Your task to perform on an android device: turn off notifications settings in the gmail app Image 0: 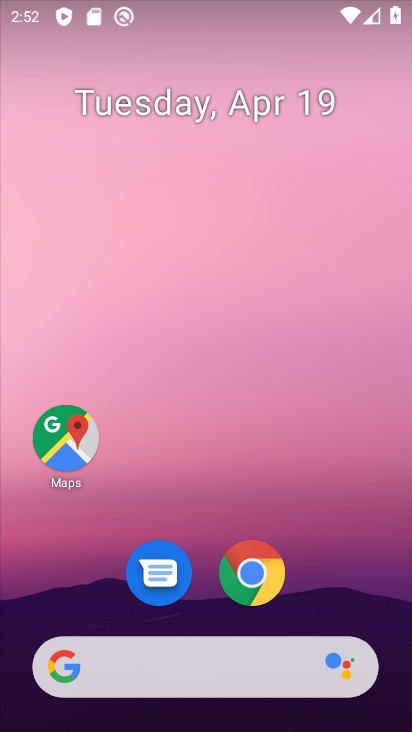
Step 0: drag from (333, 606) to (325, 111)
Your task to perform on an android device: turn off notifications settings in the gmail app Image 1: 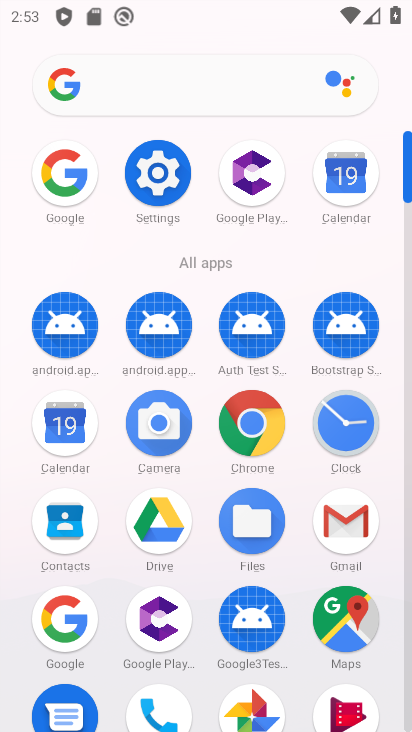
Step 1: click (342, 541)
Your task to perform on an android device: turn off notifications settings in the gmail app Image 2: 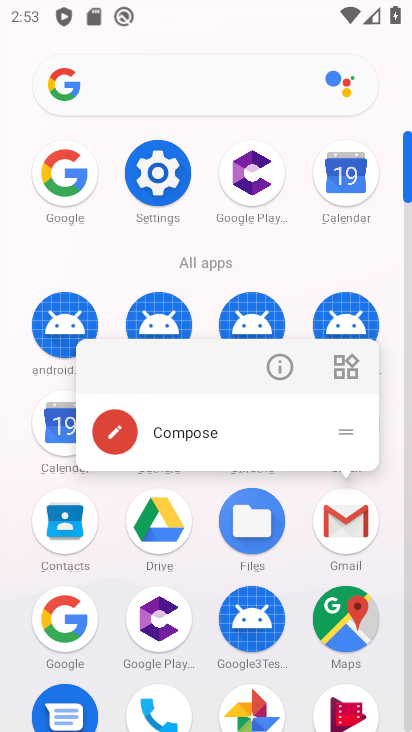
Step 2: click (343, 536)
Your task to perform on an android device: turn off notifications settings in the gmail app Image 3: 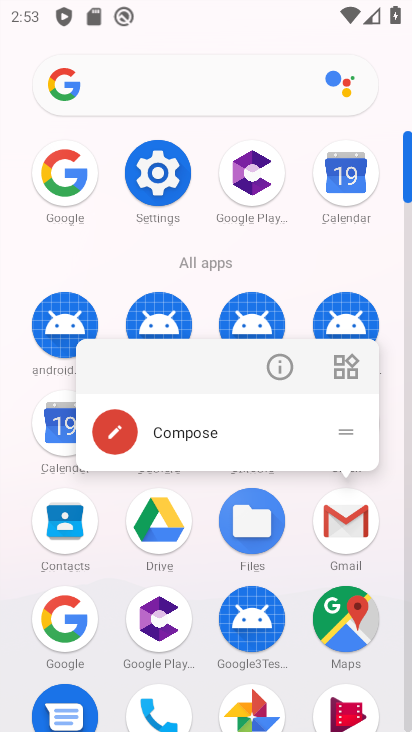
Step 3: click (343, 536)
Your task to perform on an android device: turn off notifications settings in the gmail app Image 4: 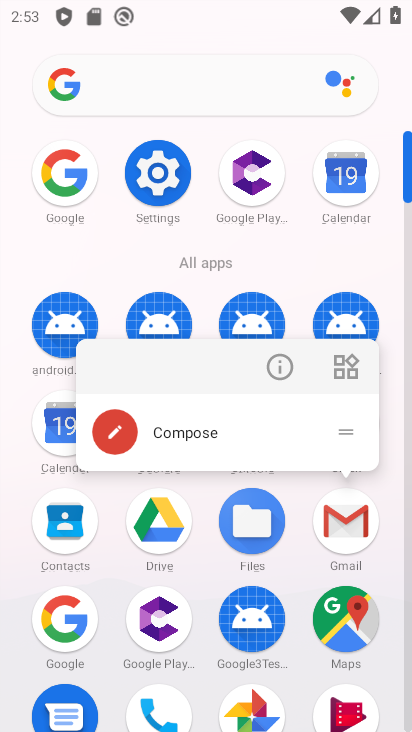
Step 4: click (343, 536)
Your task to perform on an android device: turn off notifications settings in the gmail app Image 5: 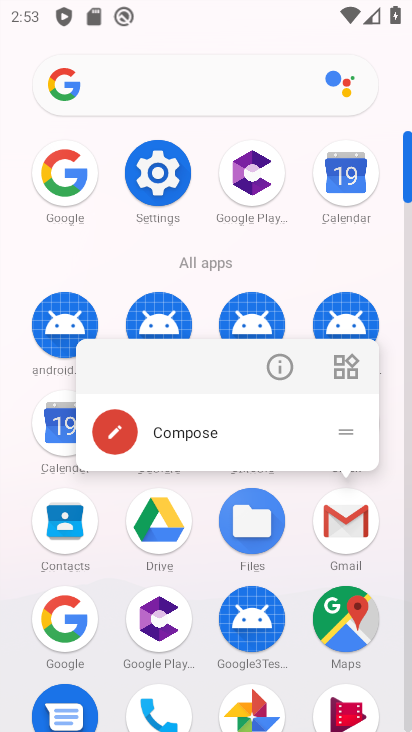
Step 5: click (343, 536)
Your task to perform on an android device: turn off notifications settings in the gmail app Image 6: 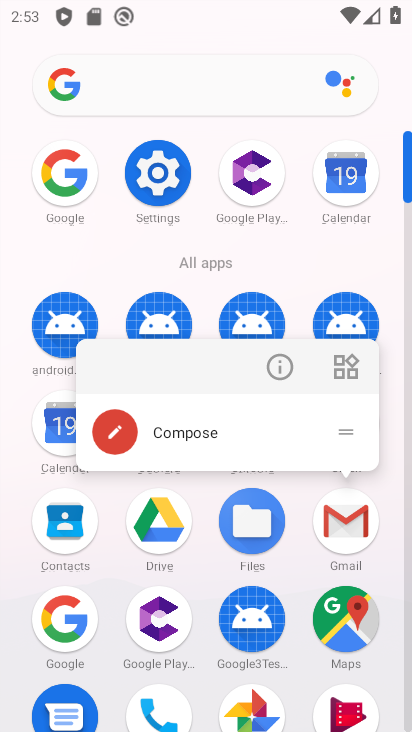
Step 6: click (343, 536)
Your task to perform on an android device: turn off notifications settings in the gmail app Image 7: 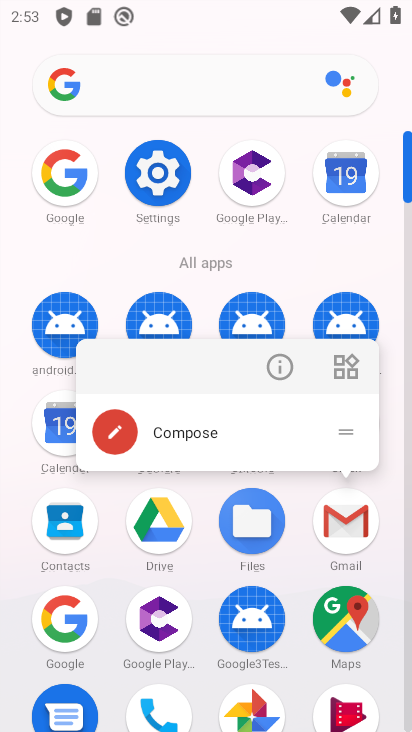
Step 7: click (351, 521)
Your task to perform on an android device: turn off notifications settings in the gmail app Image 8: 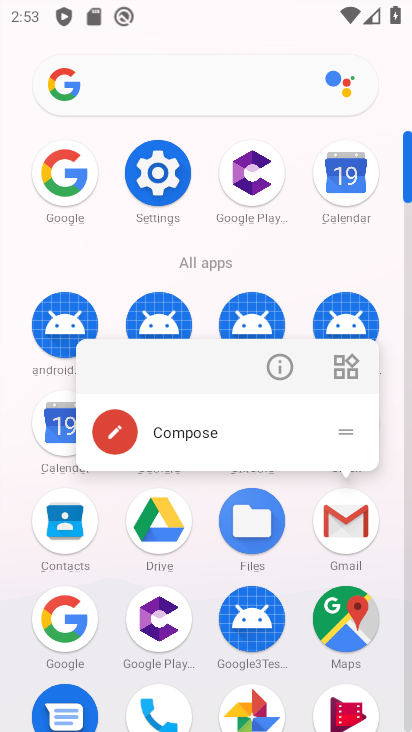
Step 8: click (351, 521)
Your task to perform on an android device: turn off notifications settings in the gmail app Image 9: 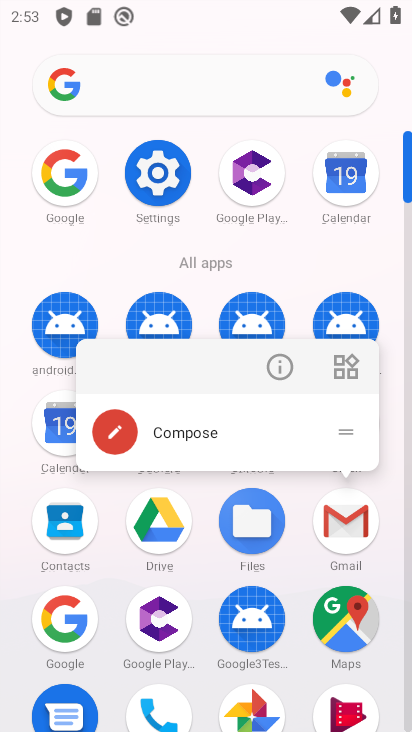
Step 9: click (351, 521)
Your task to perform on an android device: turn off notifications settings in the gmail app Image 10: 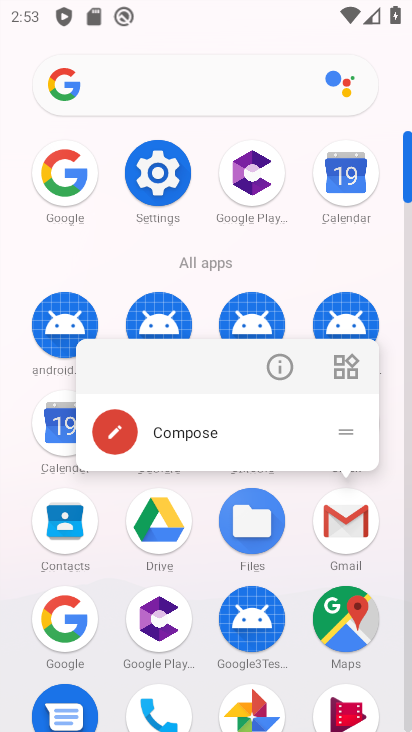
Step 10: click (354, 538)
Your task to perform on an android device: turn off notifications settings in the gmail app Image 11: 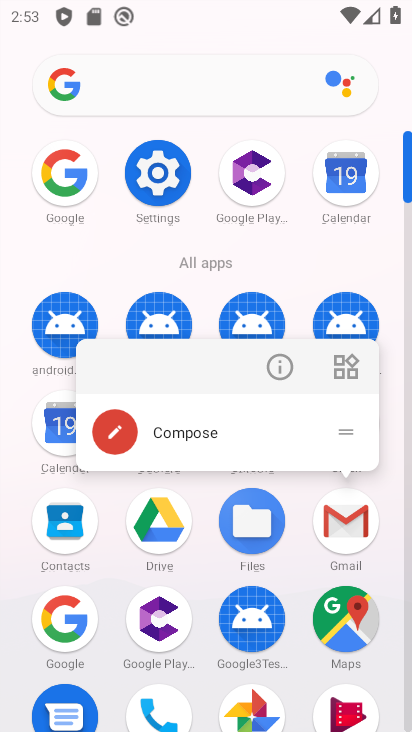
Step 11: click (354, 538)
Your task to perform on an android device: turn off notifications settings in the gmail app Image 12: 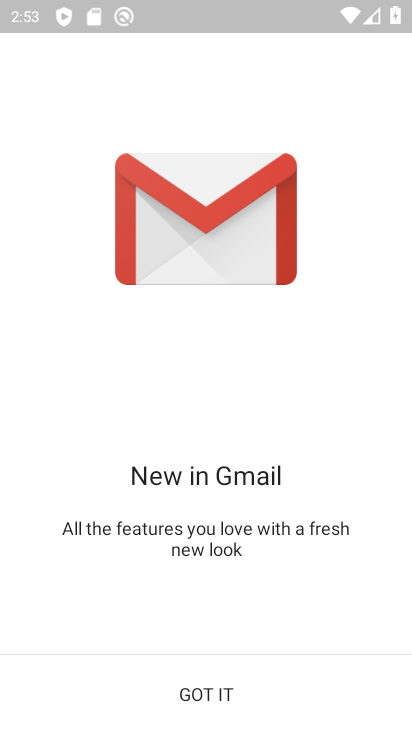
Step 12: click (192, 696)
Your task to perform on an android device: turn off notifications settings in the gmail app Image 13: 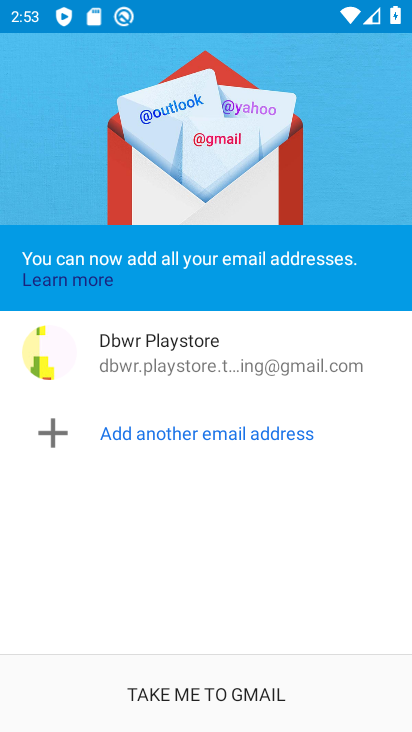
Step 13: click (197, 704)
Your task to perform on an android device: turn off notifications settings in the gmail app Image 14: 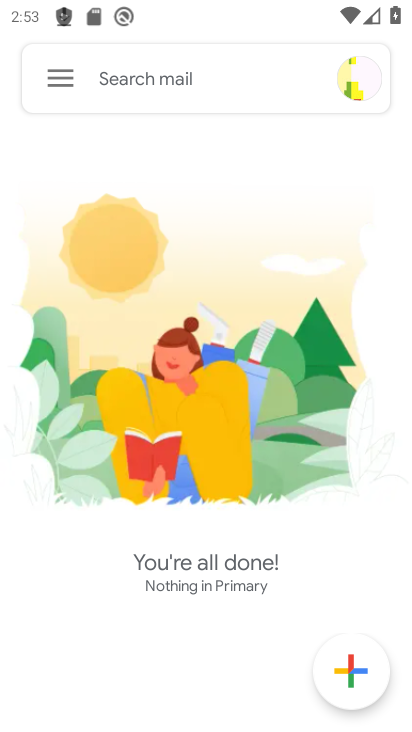
Step 14: click (52, 85)
Your task to perform on an android device: turn off notifications settings in the gmail app Image 15: 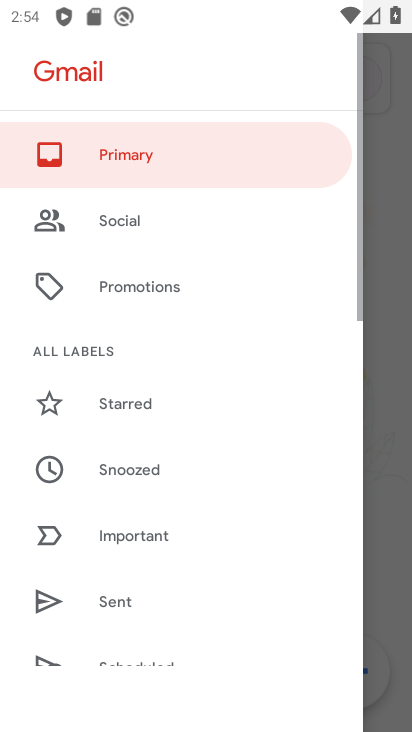
Step 15: drag from (156, 585) to (196, 242)
Your task to perform on an android device: turn off notifications settings in the gmail app Image 16: 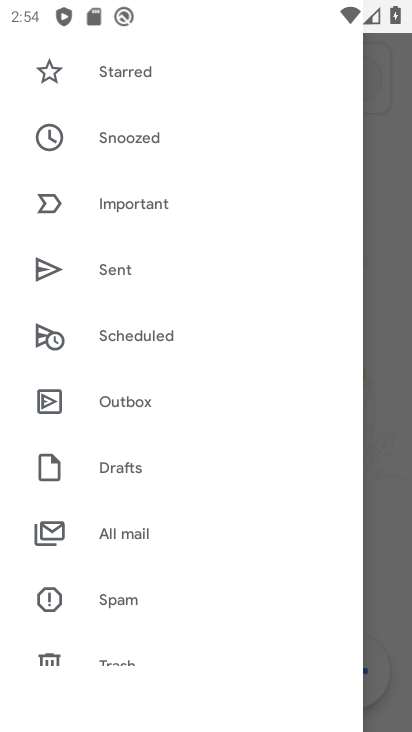
Step 16: drag from (174, 605) to (210, 376)
Your task to perform on an android device: turn off notifications settings in the gmail app Image 17: 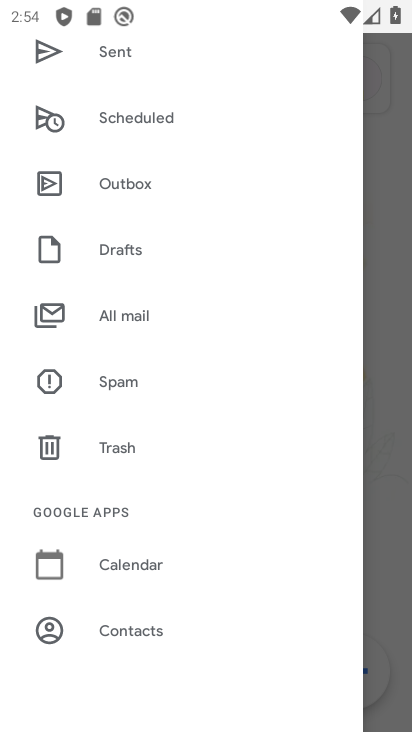
Step 17: drag from (185, 585) to (212, 421)
Your task to perform on an android device: turn off notifications settings in the gmail app Image 18: 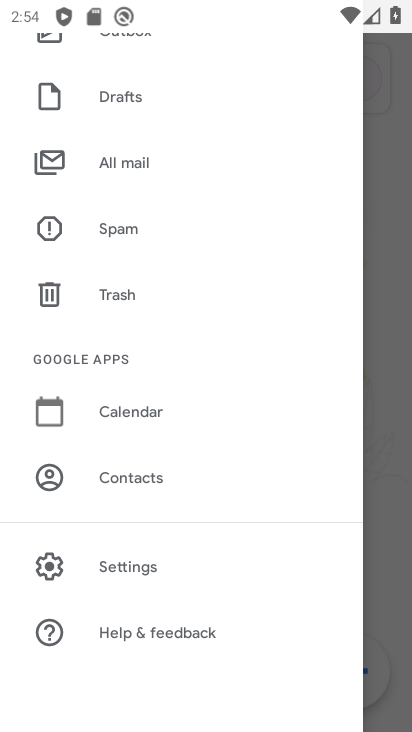
Step 18: click (133, 570)
Your task to perform on an android device: turn off notifications settings in the gmail app Image 19: 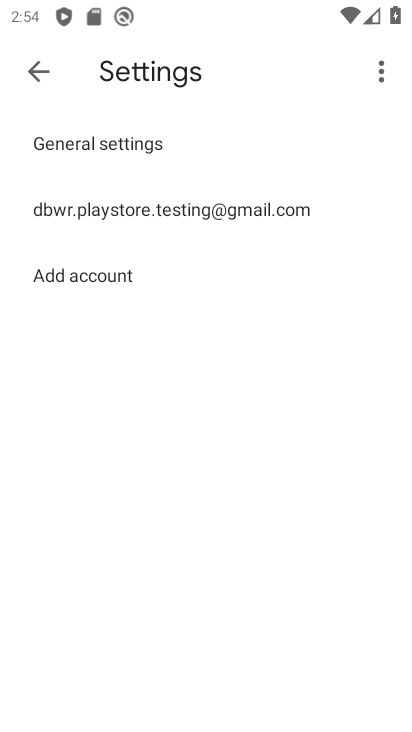
Step 19: click (142, 218)
Your task to perform on an android device: turn off notifications settings in the gmail app Image 20: 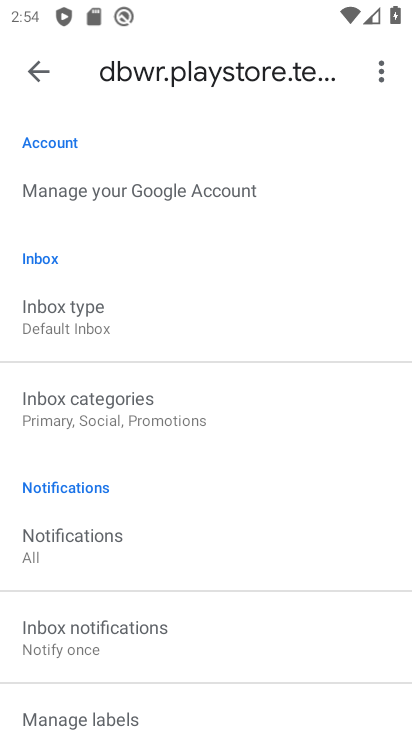
Step 20: drag from (152, 544) to (187, 313)
Your task to perform on an android device: turn off notifications settings in the gmail app Image 21: 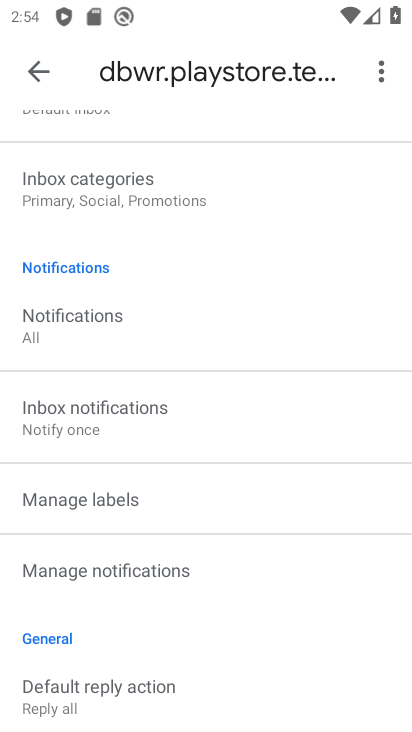
Step 21: drag from (206, 647) to (233, 362)
Your task to perform on an android device: turn off notifications settings in the gmail app Image 22: 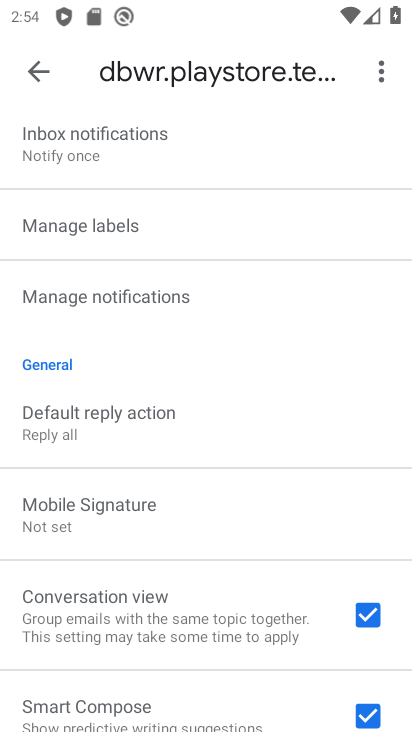
Step 22: drag from (230, 320) to (240, 551)
Your task to perform on an android device: turn off notifications settings in the gmail app Image 23: 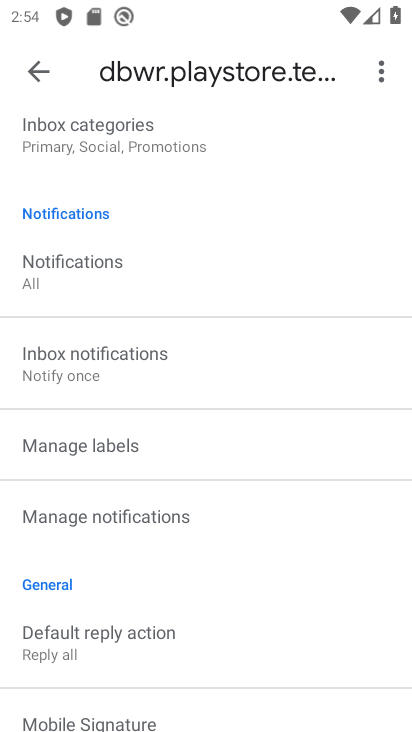
Step 23: click (191, 289)
Your task to perform on an android device: turn off notifications settings in the gmail app Image 24: 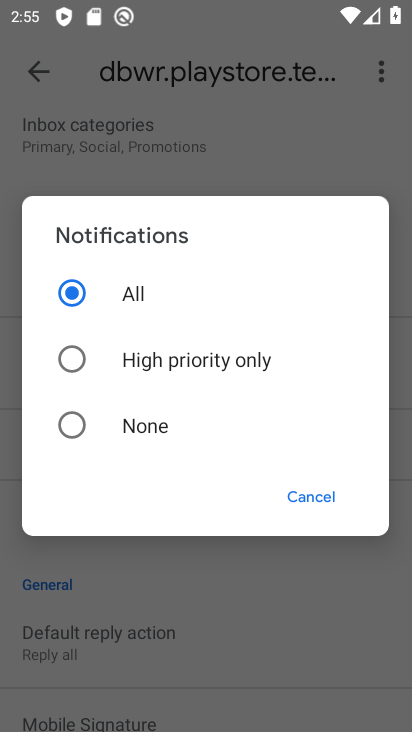
Step 24: click (116, 432)
Your task to perform on an android device: turn off notifications settings in the gmail app Image 25: 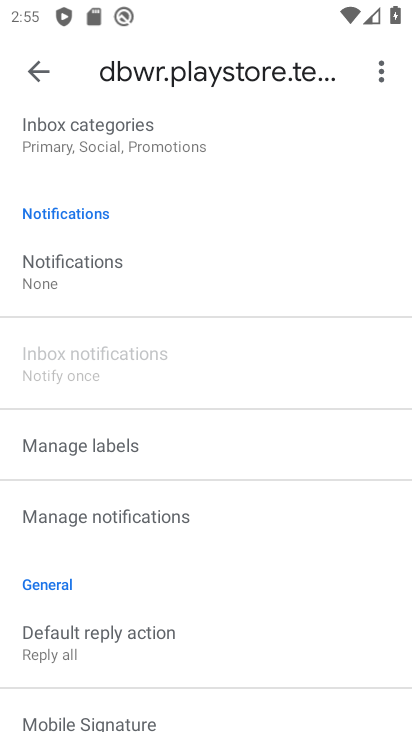
Step 25: task complete